Your task to perform on an android device: View the shopping cart on walmart. Add razer huntsman to the cart on walmart Image 0: 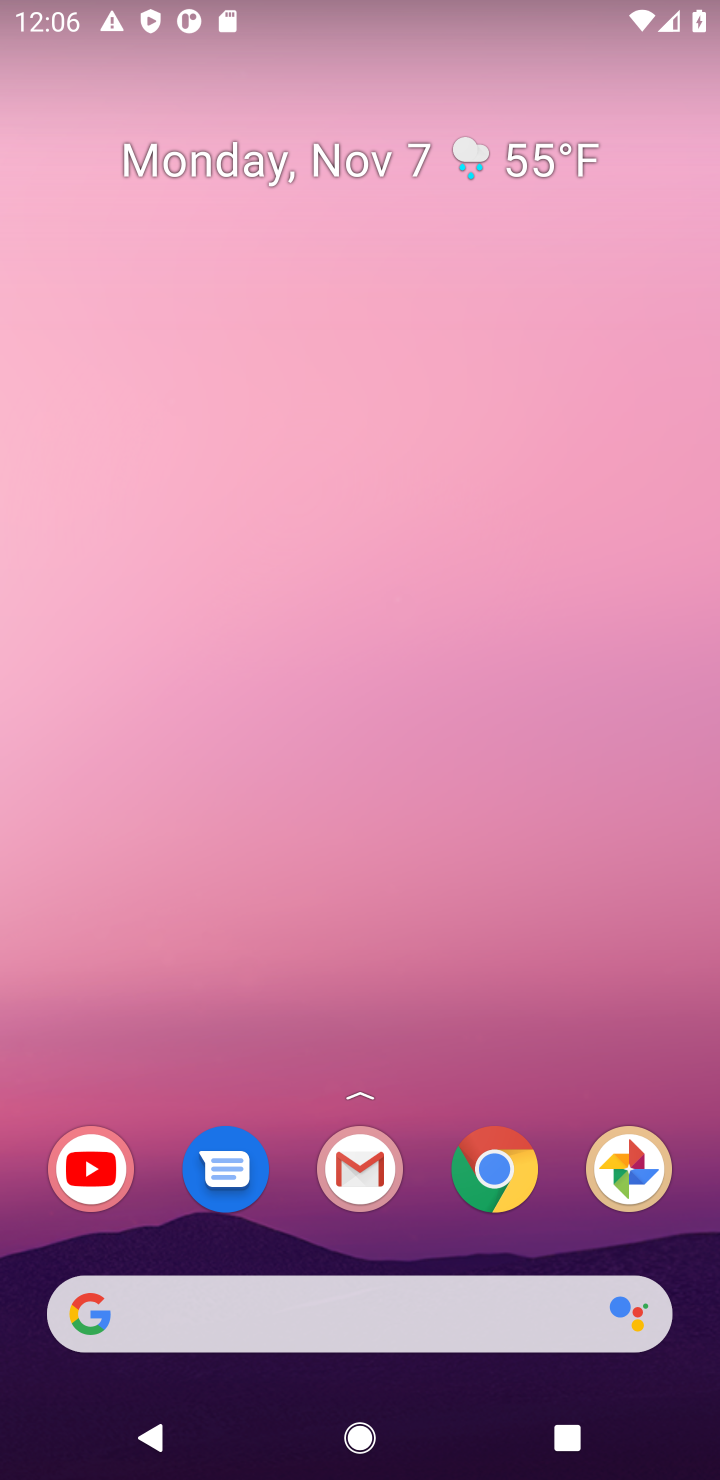
Step 0: click (522, 1170)
Your task to perform on an android device: View the shopping cart on walmart. Add razer huntsman to the cart on walmart Image 1: 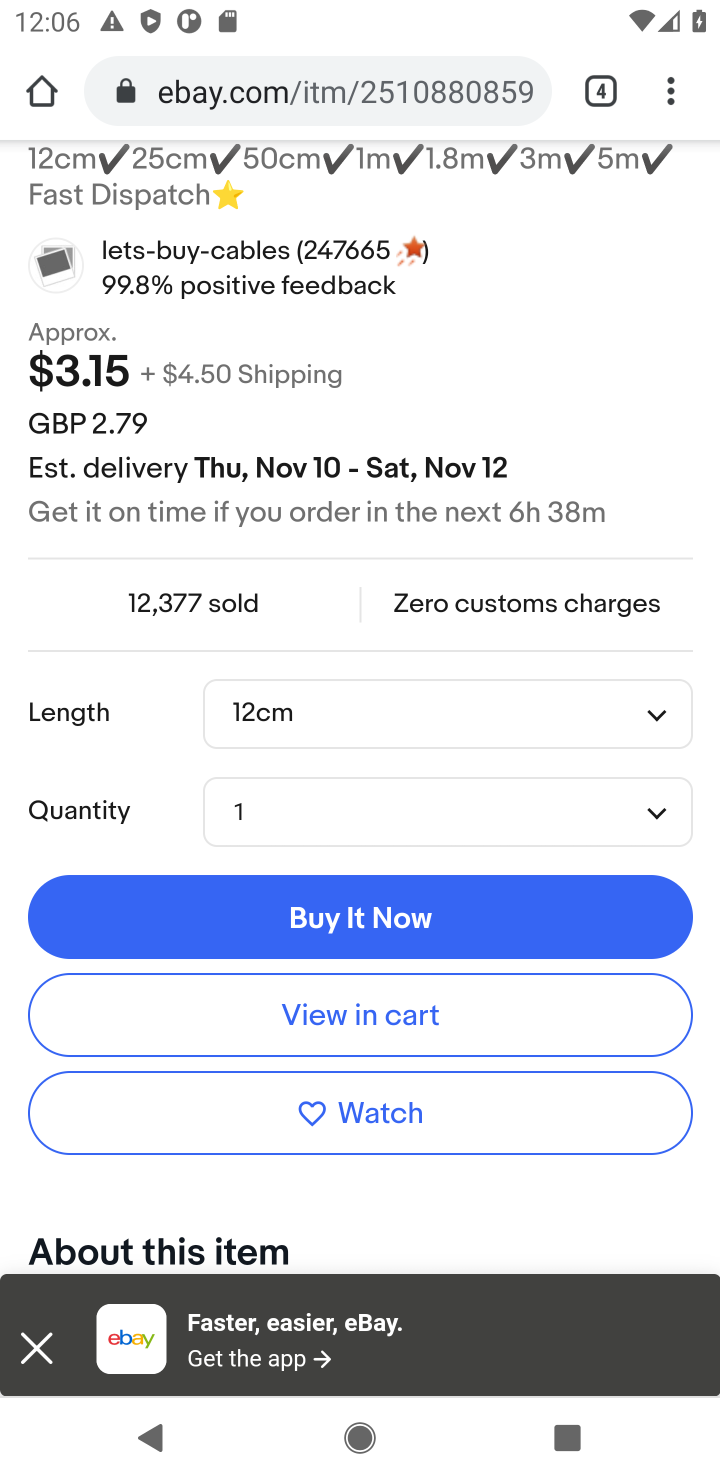
Step 1: click (605, 99)
Your task to perform on an android device: View the shopping cart on walmart. Add razer huntsman to the cart on walmart Image 2: 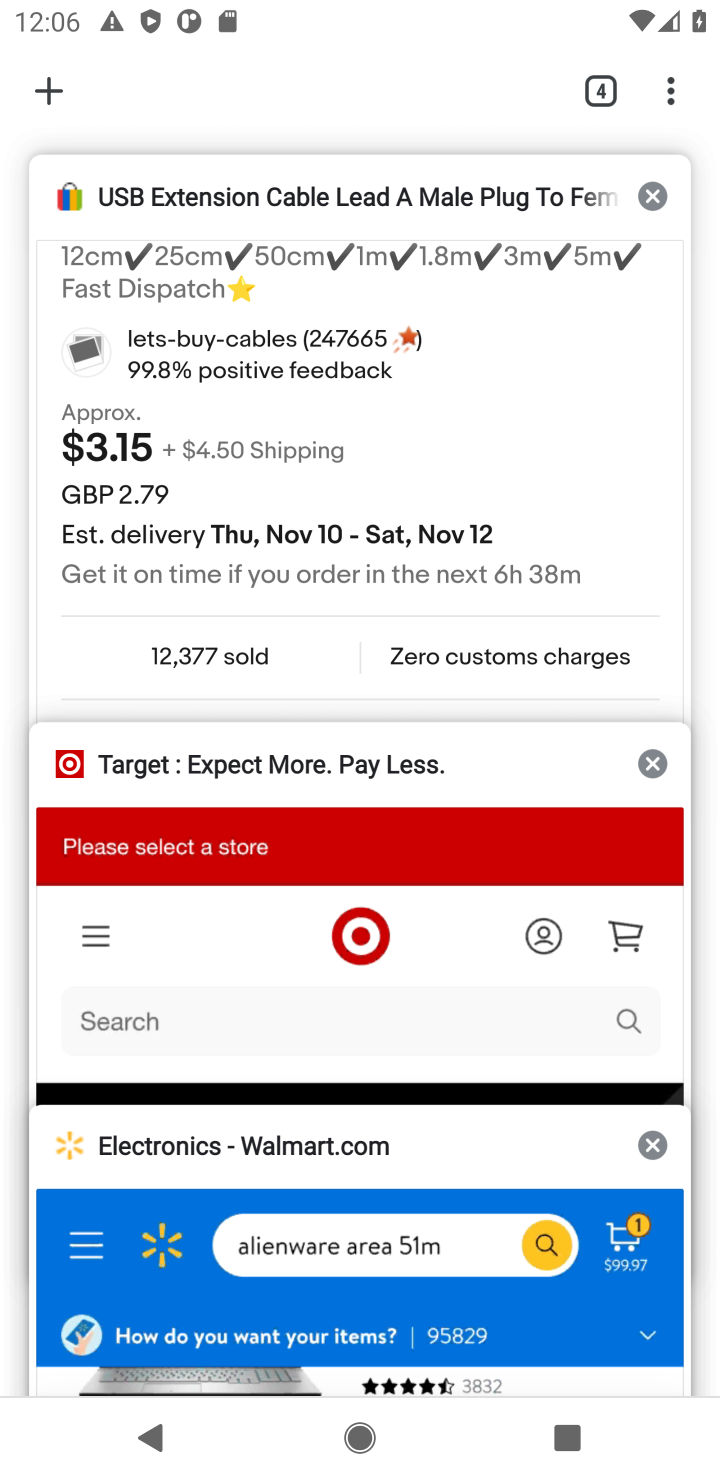
Step 2: click (227, 1164)
Your task to perform on an android device: View the shopping cart on walmart. Add razer huntsman to the cart on walmart Image 3: 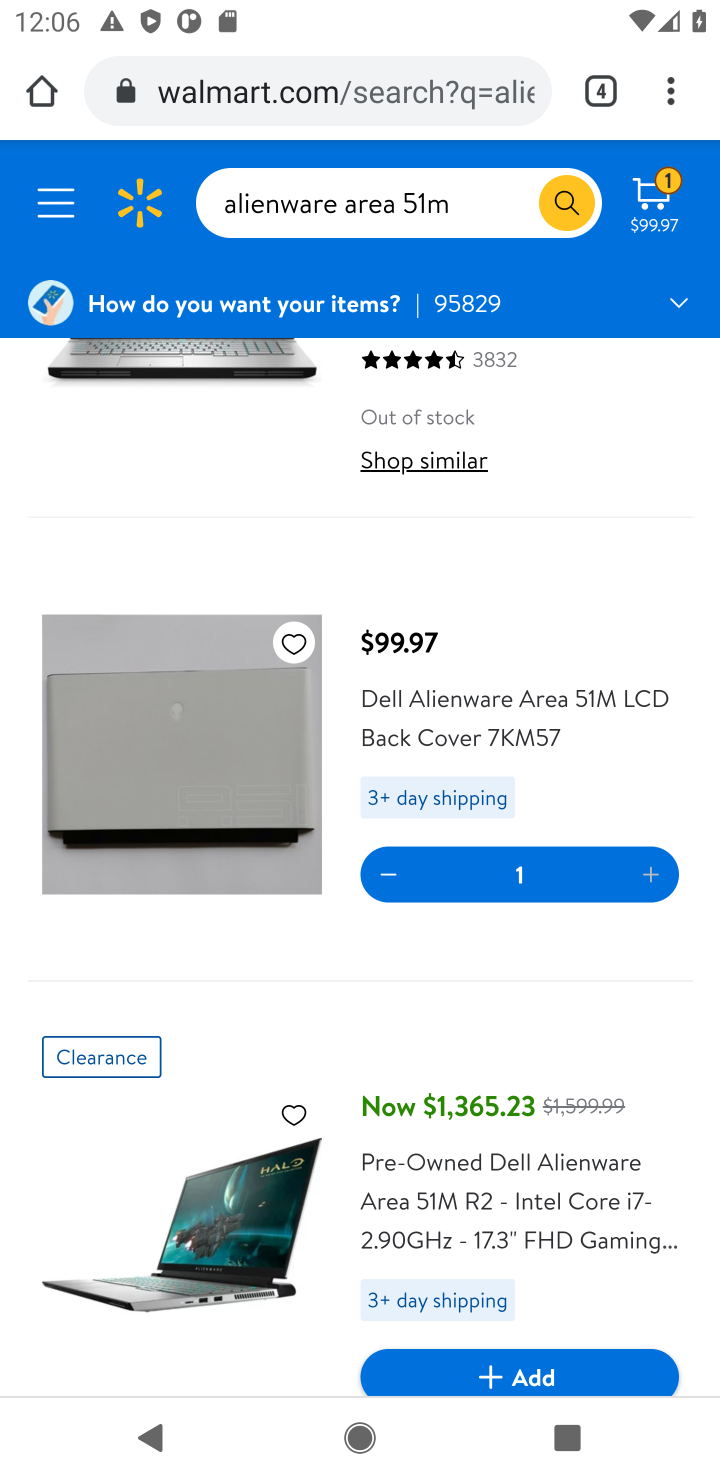
Step 3: click (401, 211)
Your task to perform on an android device: View the shopping cart on walmart. Add razer huntsman to the cart on walmart Image 4: 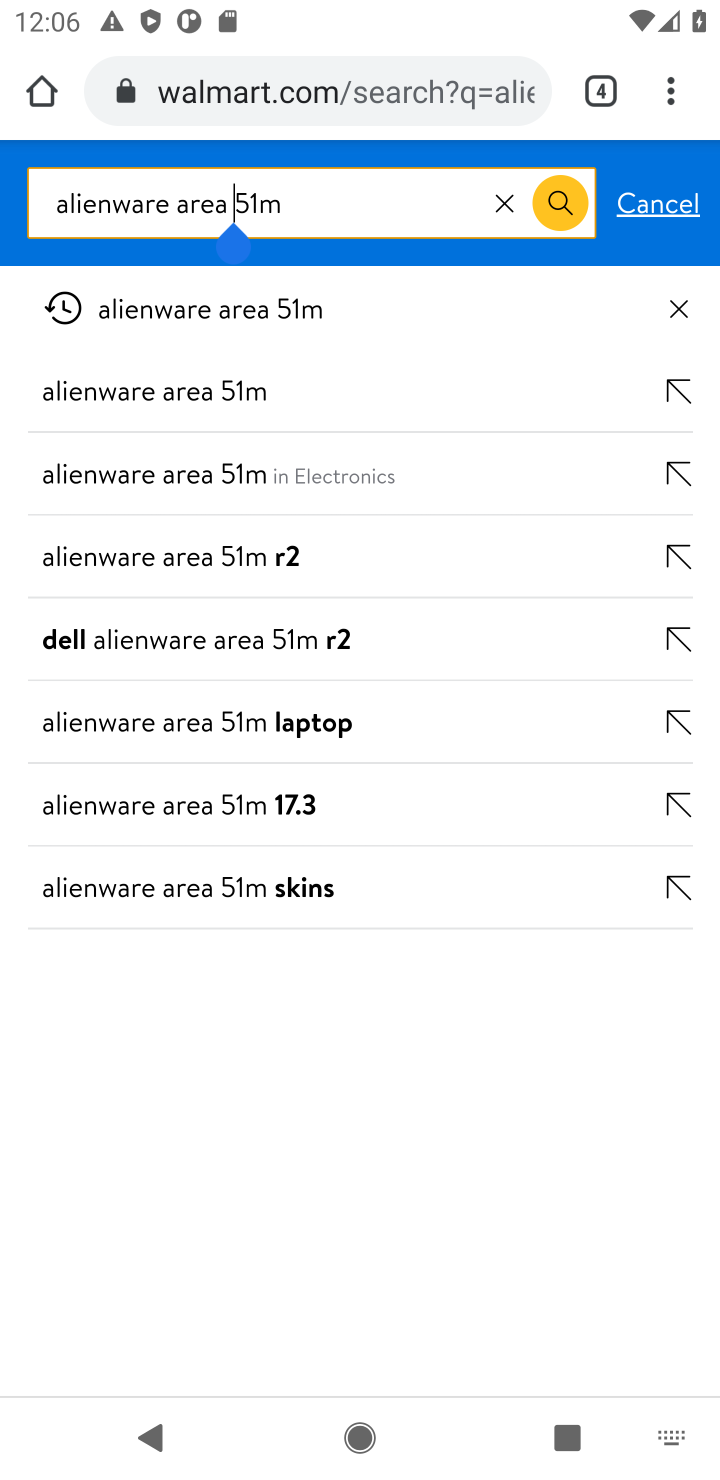
Step 4: click (401, 211)
Your task to perform on an android device: View the shopping cart on walmart. Add razer huntsman to the cart on walmart Image 5: 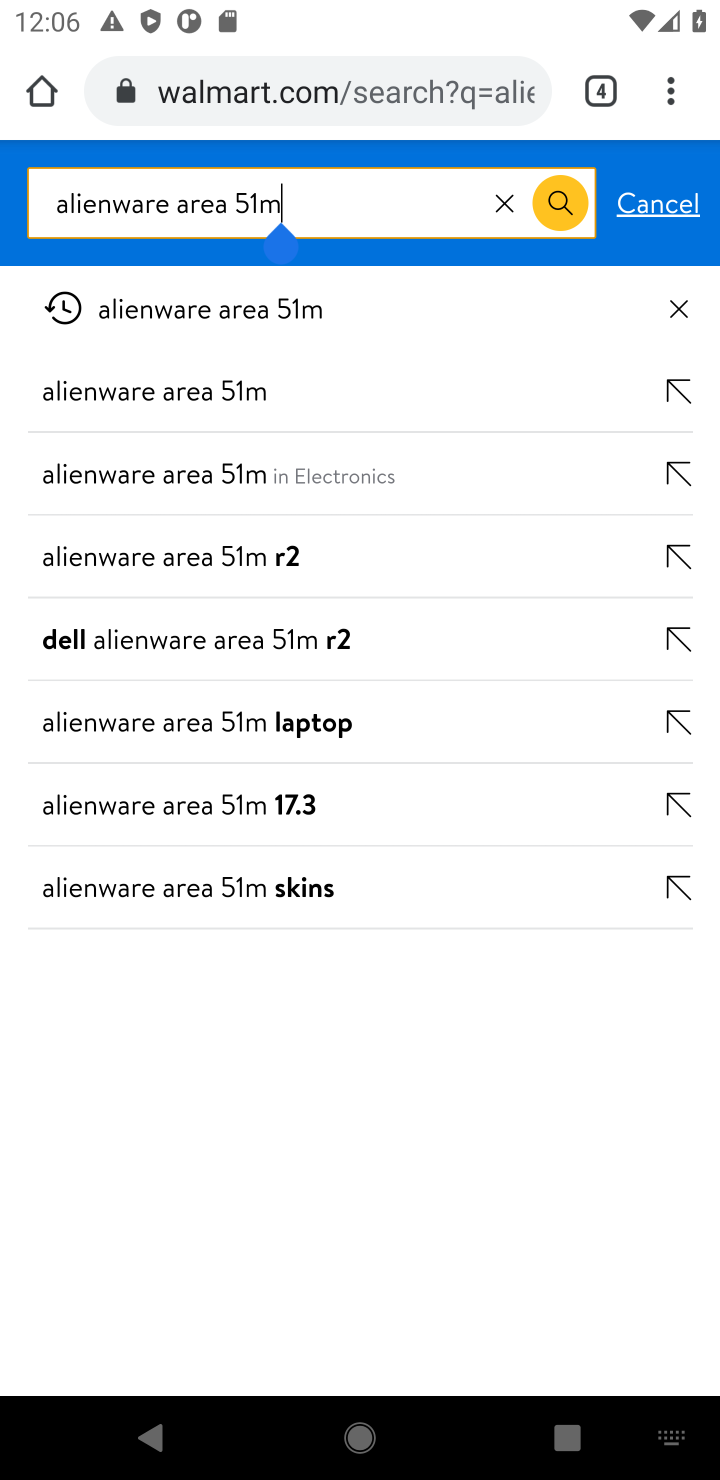
Step 5: click (508, 190)
Your task to perform on an android device: View the shopping cart on walmart. Add razer huntsman to the cart on walmart Image 6: 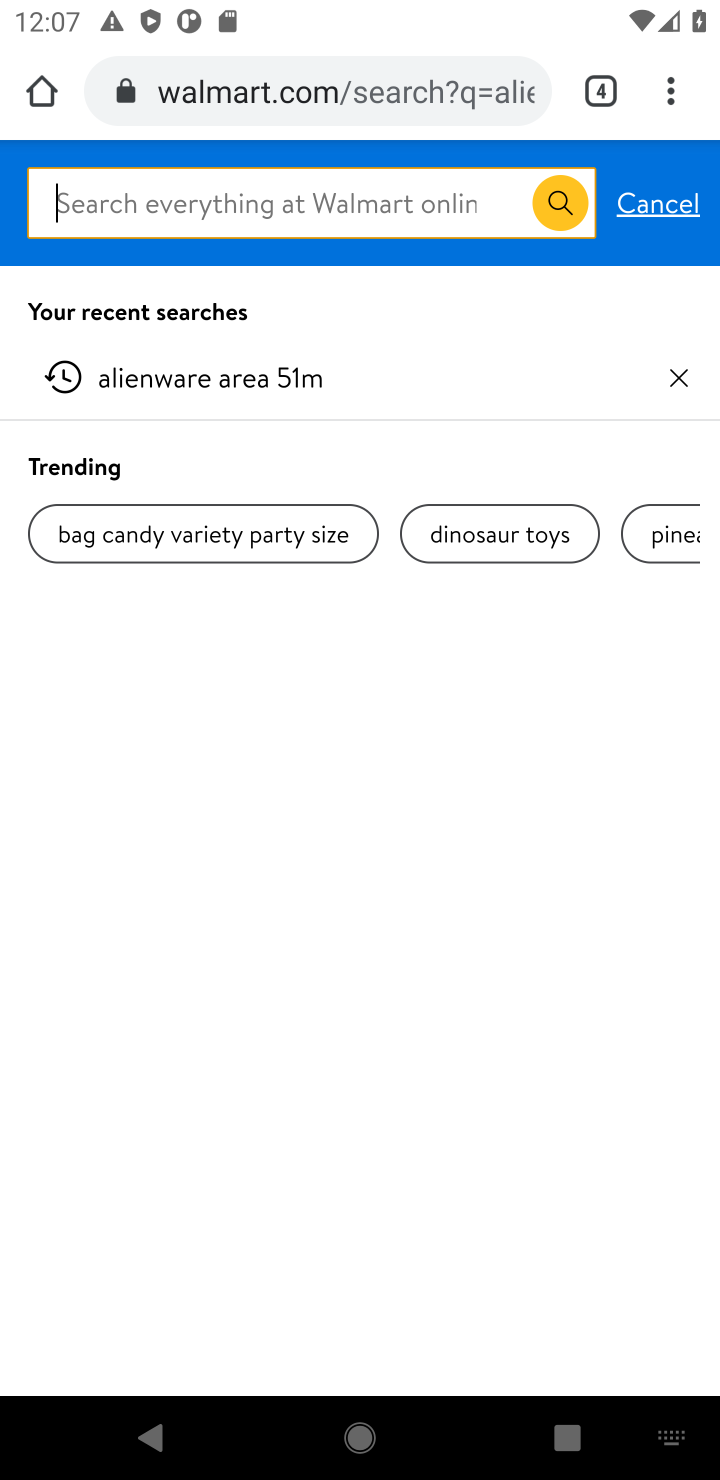
Step 6: press enter
Your task to perform on an android device: View the shopping cart on walmart. Add razer huntsman to the cart on walmart Image 7: 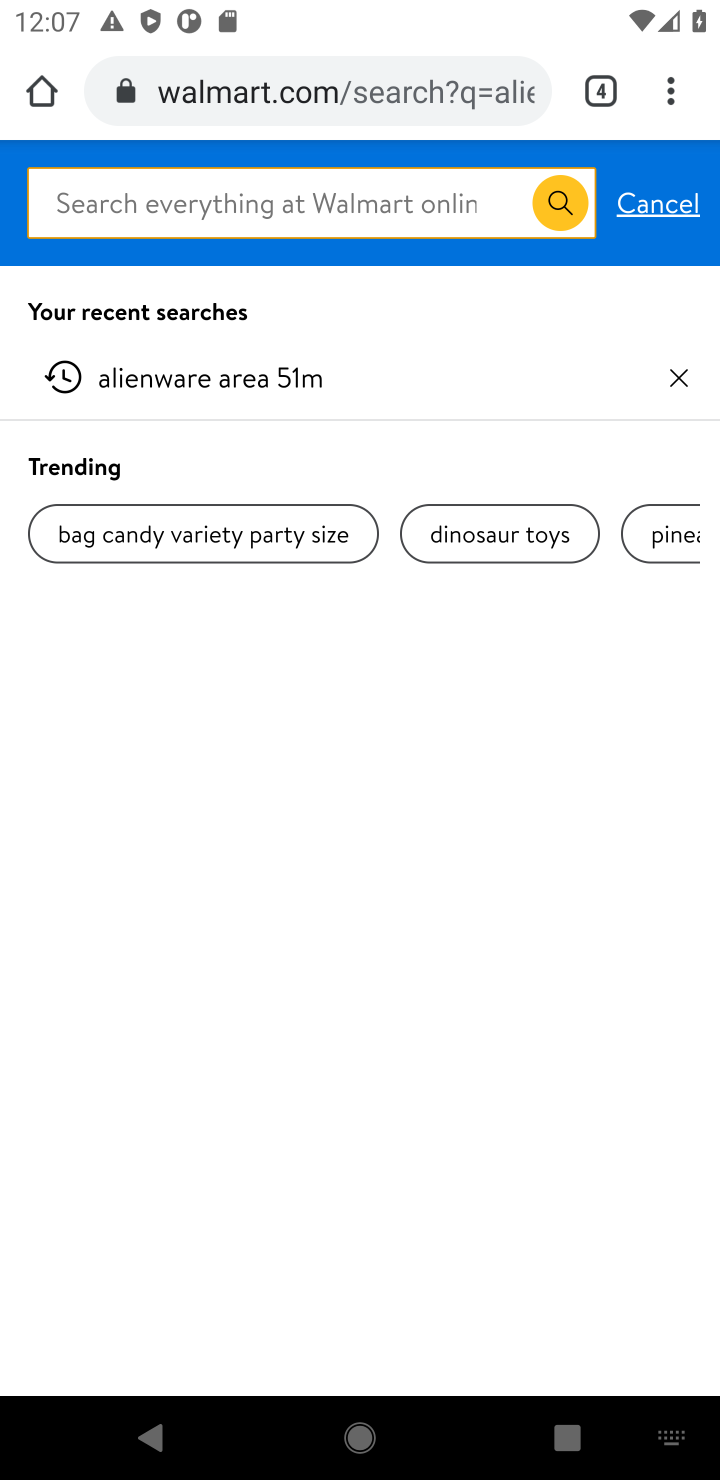
Step 7: type "razer huntsman"
Your task to perform on an android device: View the shopping cart on walmart. Add razer huntsman to the cart on walmart Image 8: 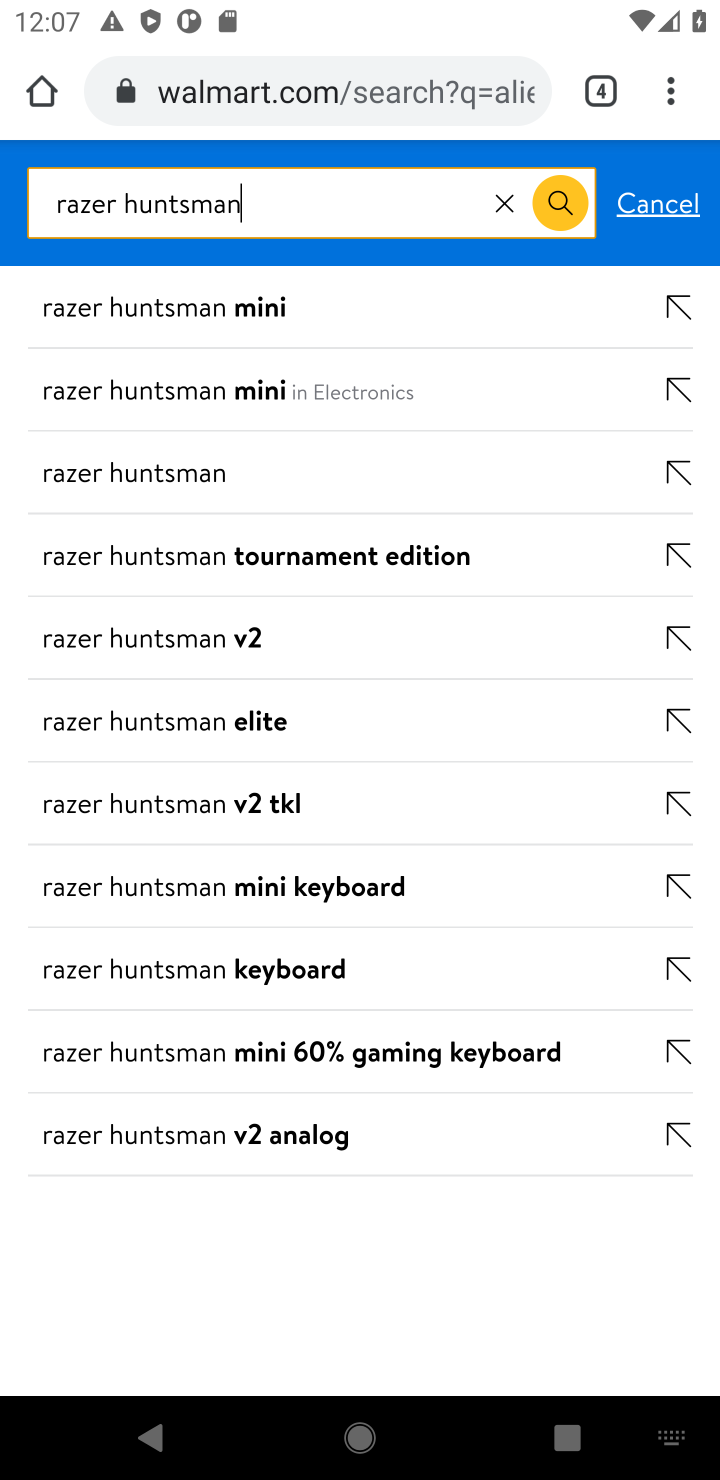
Step 8: click (218, 380)
Your task to perform on an android device: View the shopping cart on walmart. Add razer huntsman to the cart on walmart Image 9: 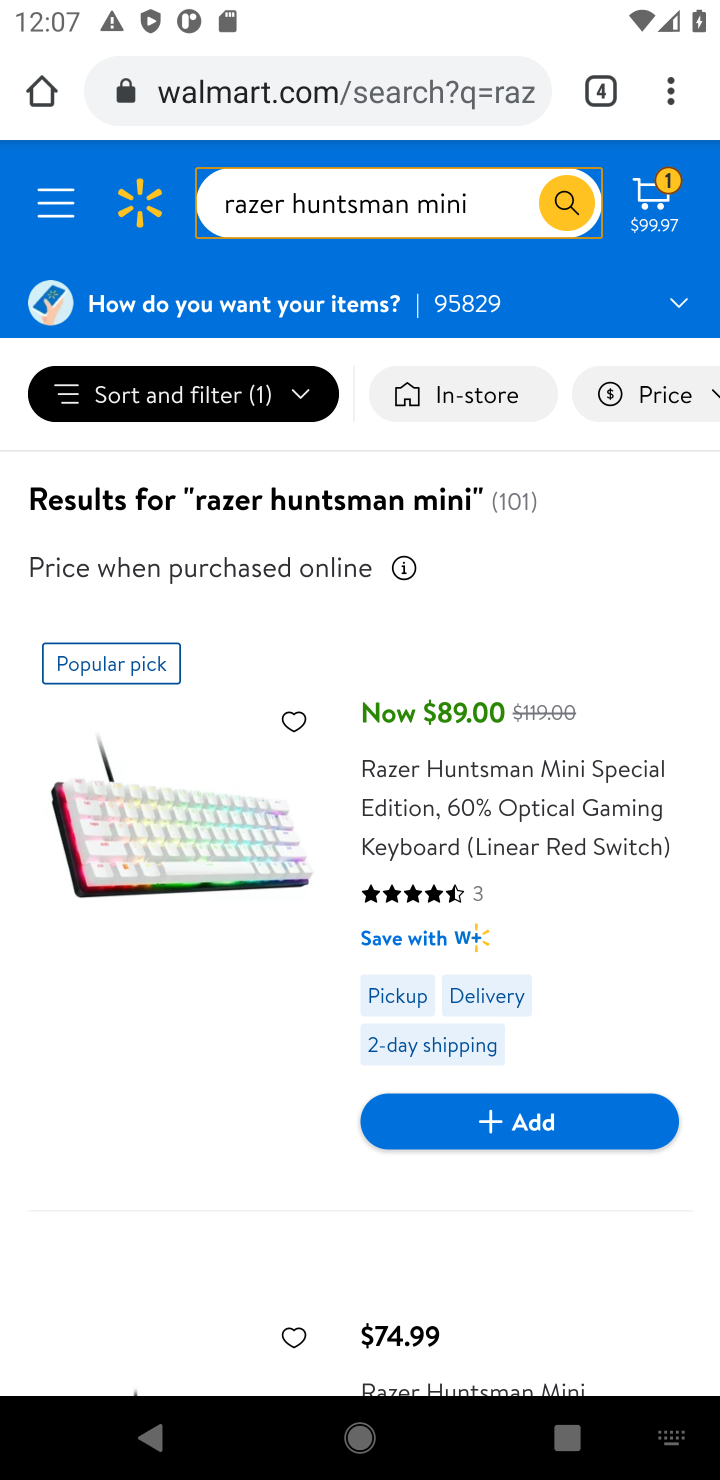
Step 9: click (508, 1117)
Your task to perform on an android device: View the shopping cart on walmart. Add razer huntsman to the cart on walmart Image 10: 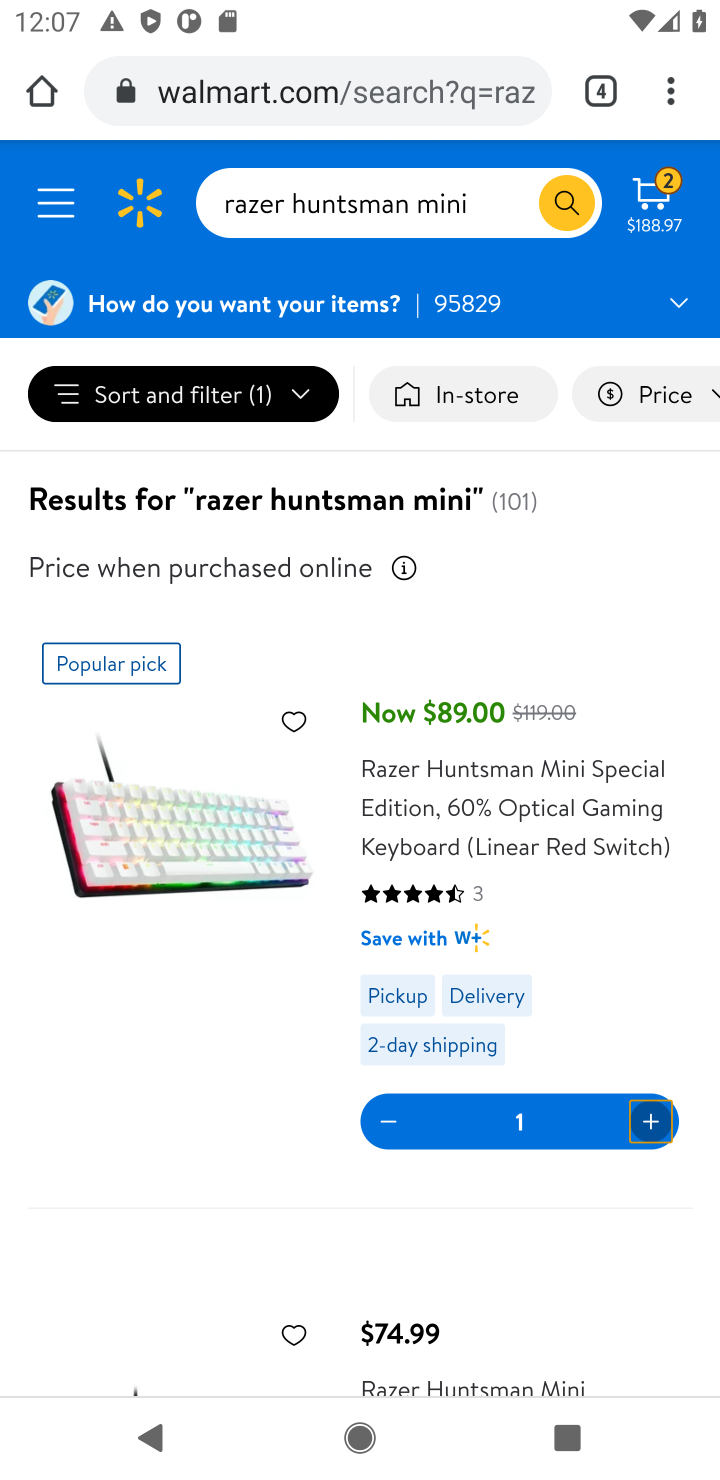
Step 10: task complete